Your task to perform on an android device: show emergency info Image 0: 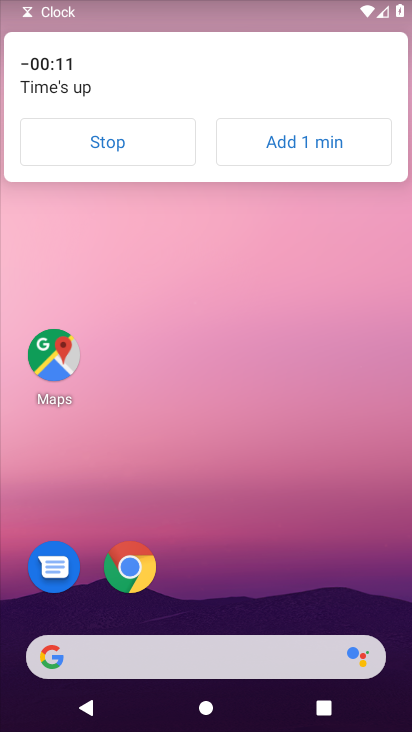
Step 0: drag from (300, 567) to (299, 59)
Your task to perform on an android device: show emergency info Image 1: 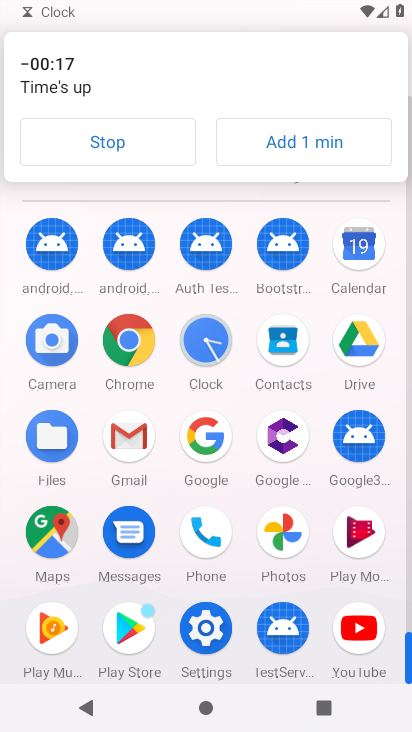
Step 1: click (217, 634)
Your task to perform on an android device: show emergency info Image 2: 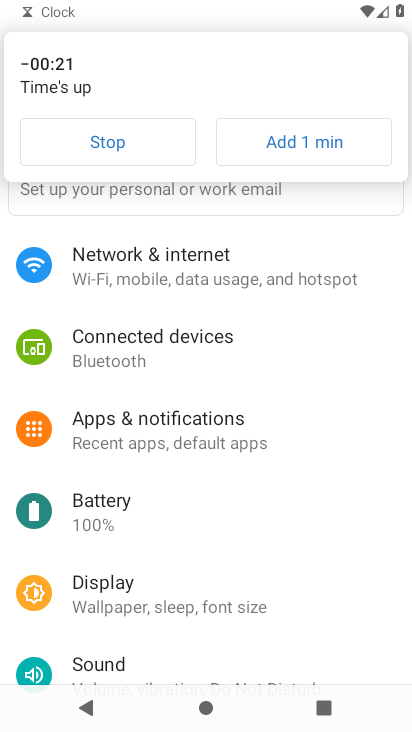
Step 2: drag from (349, 575) to (361, 353)
Your task to perform on an android device: show emergency info Image 3: 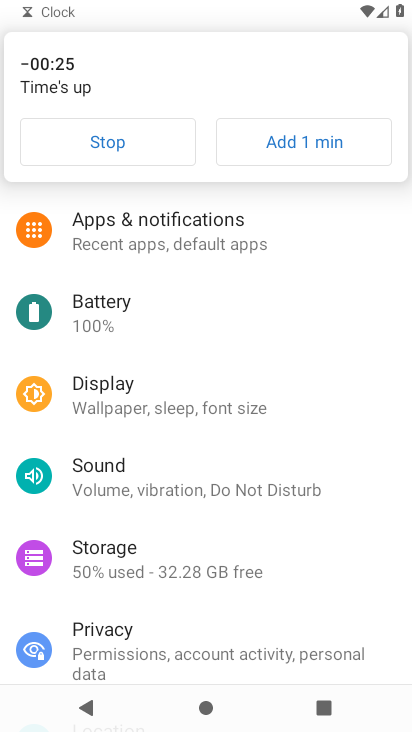
Step 3: drag from (345, 568) to (344, 374)
Your task to perform on an android device: show emergency info Image 4: 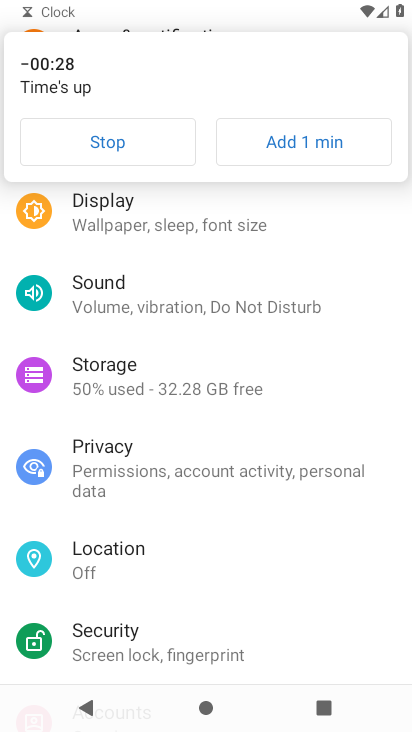
Step 4: drag from (373, 590) to (388, 422)
Your task to perform on an android device: show emergency info Image 5: 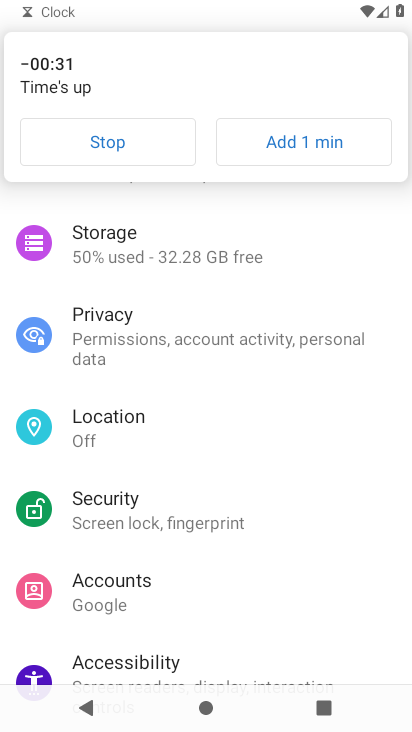
Step 5: drag from (364, 613) to (367, 447)
Your task to perform on an android device: show emergency info Image 6: 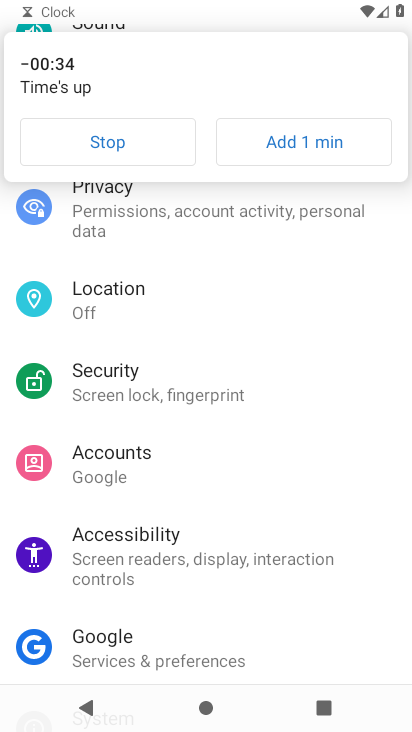
Step 6: drag from (367, 604) to (382, 412)
Your task to perform on an android device: show emergency info Image 7: 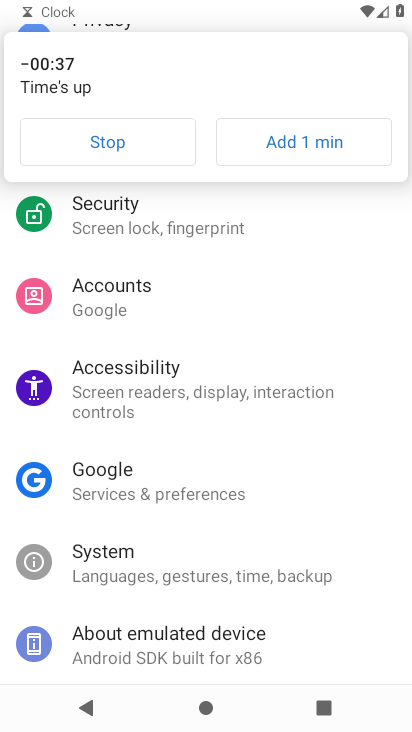
Step 7: drag from (377, 610) to (374, 453)
Your task to perform on an android device: show emergency info Image 8: 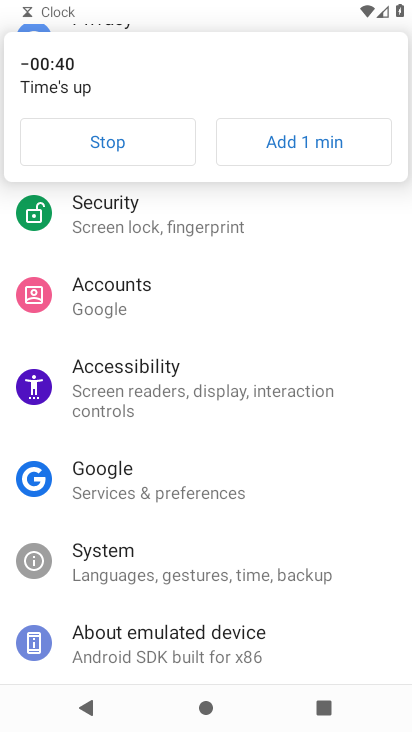
Step 8: click (184, 646)
Your task to perform on an android device: show emergency info Image 9: 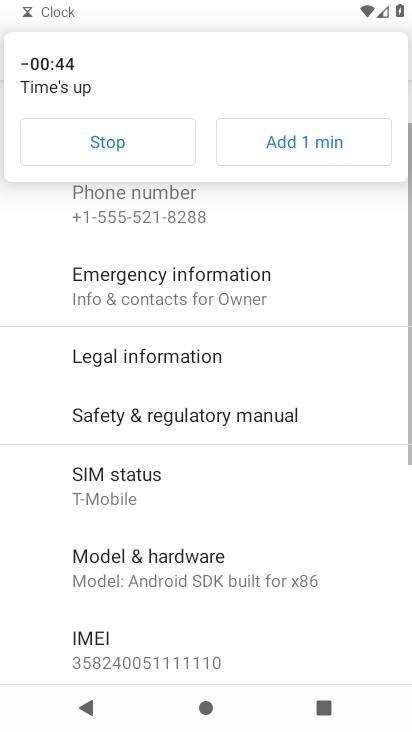
Step 9: click (148, 277)
Your task to perform on an android device: show emergency info Image 10: 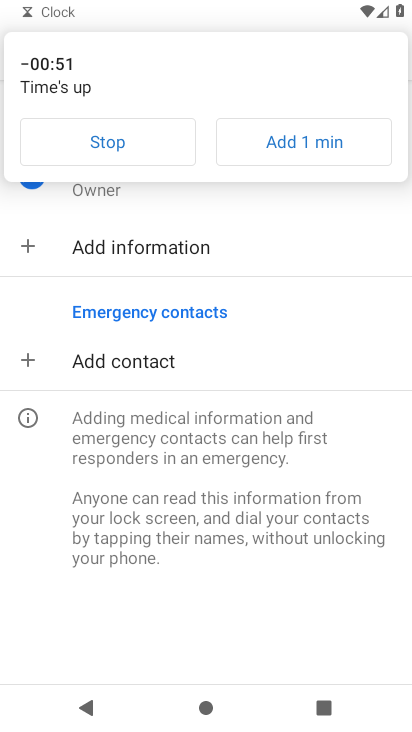
Step 10: task complete